Your task to perform on an android device: change the clock style Image 0: 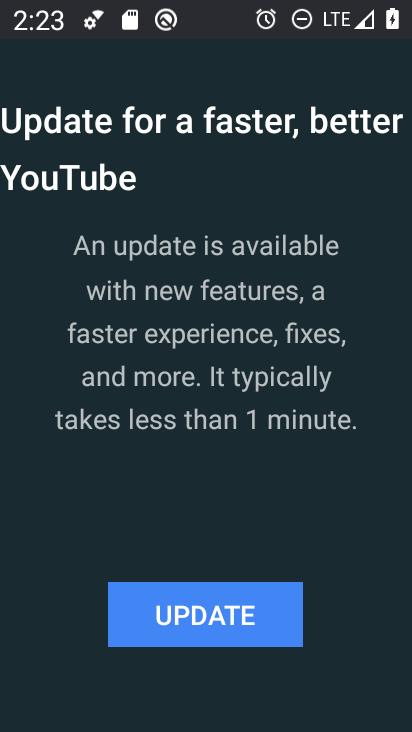
Step 0: press back button
Your task to perform on an android device: change the clock style Image 1: 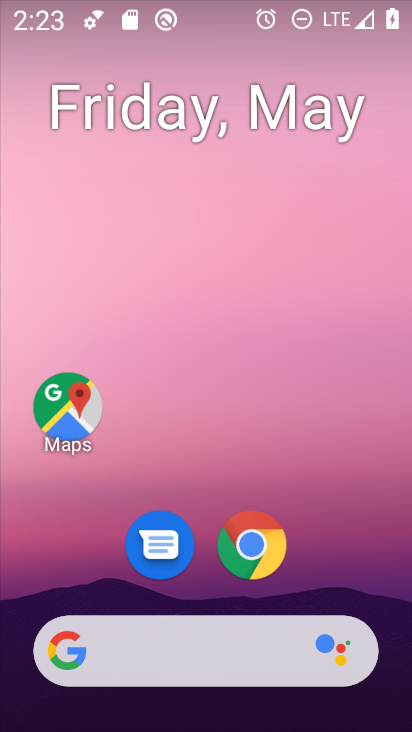
Step 1: drag from (347, 544) to (333, 275)
Your task to perform on an android device: change the clock style Image 2: 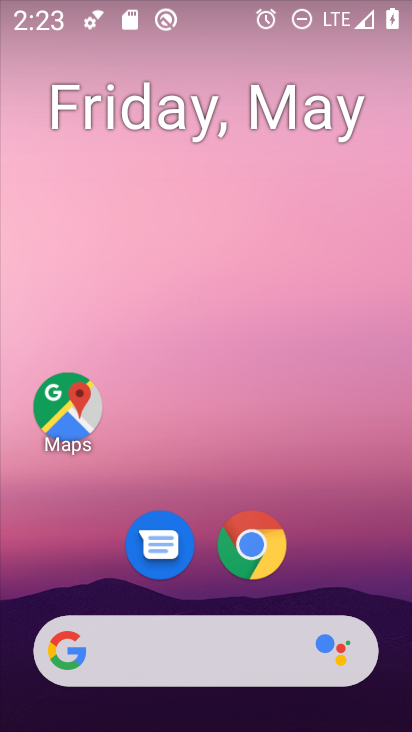
Step 2: drag from (273, 638) to (283, 306)
Your task to perform on an android device: change the clock style Image 3: 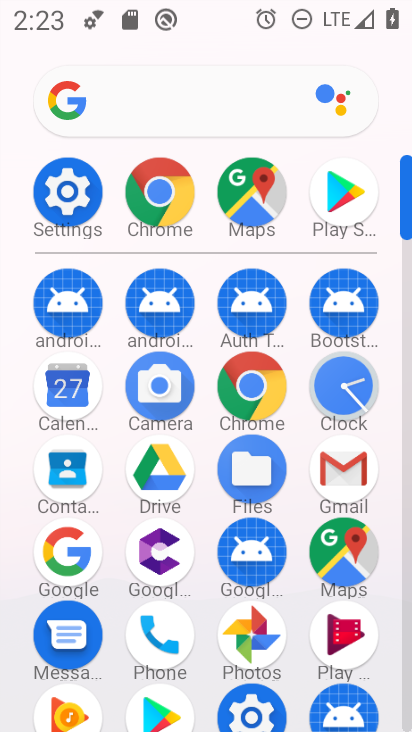
Step 3: click (312, 371)
Your task to perform on an android device: change the clock style Image 4: 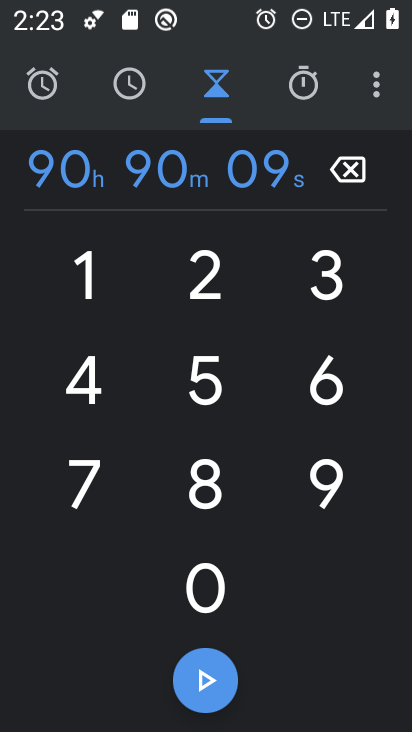
Step 4: click (369, 89)
Your task to perform on an android device: change the clock style Image 5: 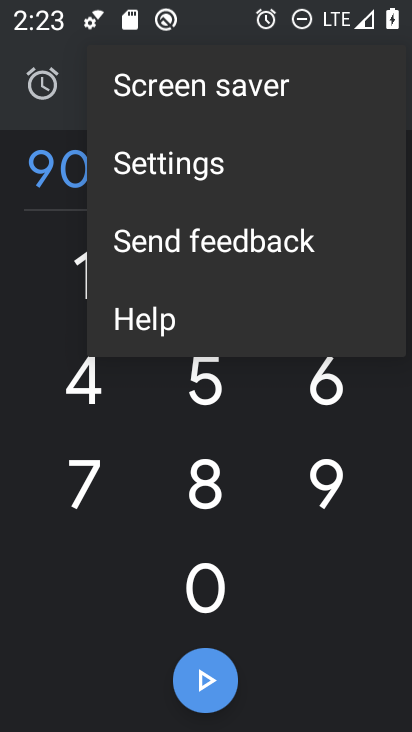
Step 5: click (226, 161)
Your task to perform on an android device: change the clock style Image 6: 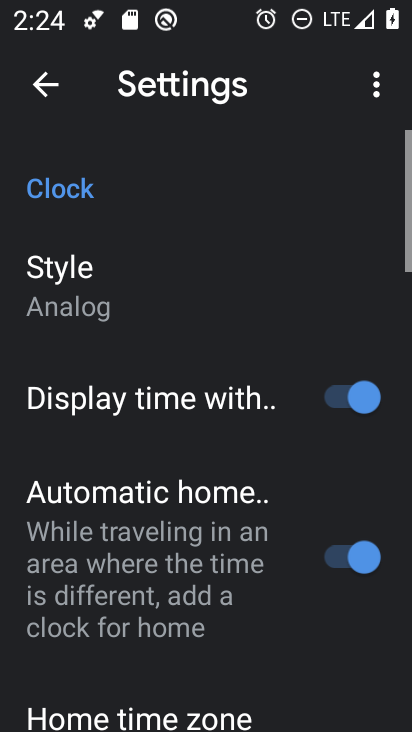
Step 6: click (115, 267)
Your task to perform on an android device: change the clock style Image 7: 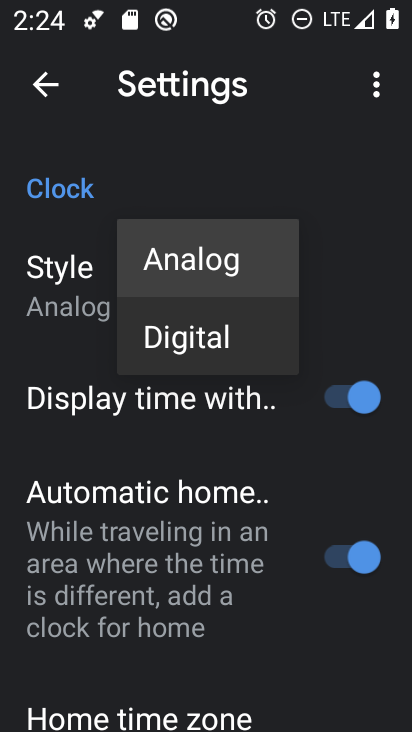
Step 7: click (169, 335)
Your task to perform on an android device: change the clock style Image 8: 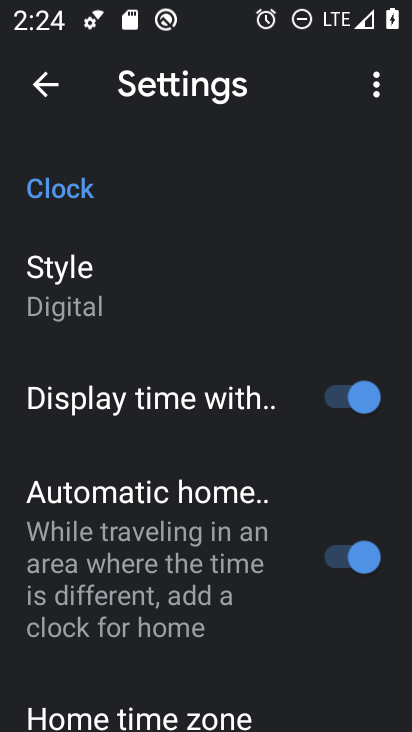
Step 8: task complete